Your task to perform on an android device: Go to network settings Image 0: 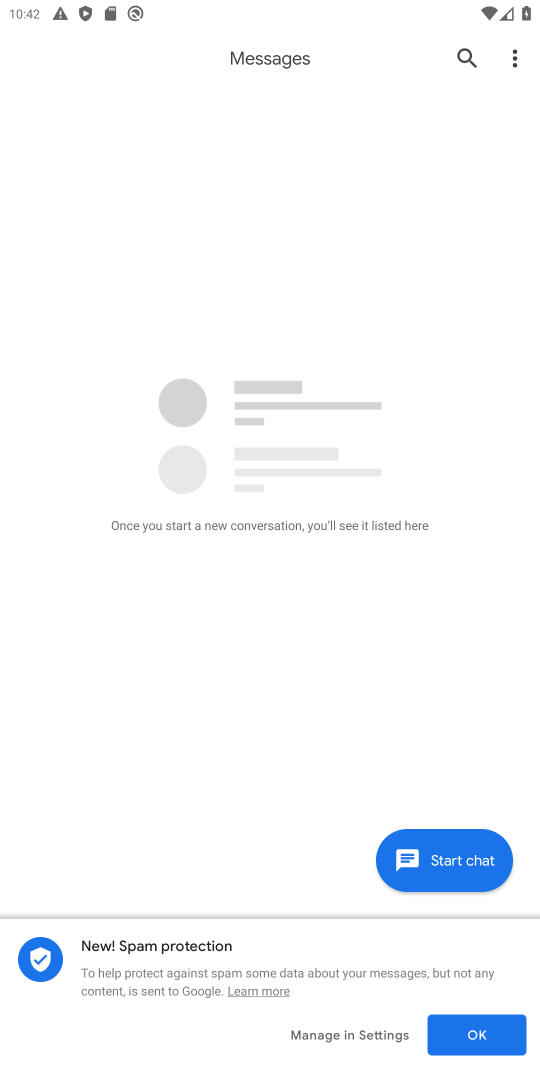
Step 0: press home button
Your task to perform on an android device: Go to network settings Image 1: 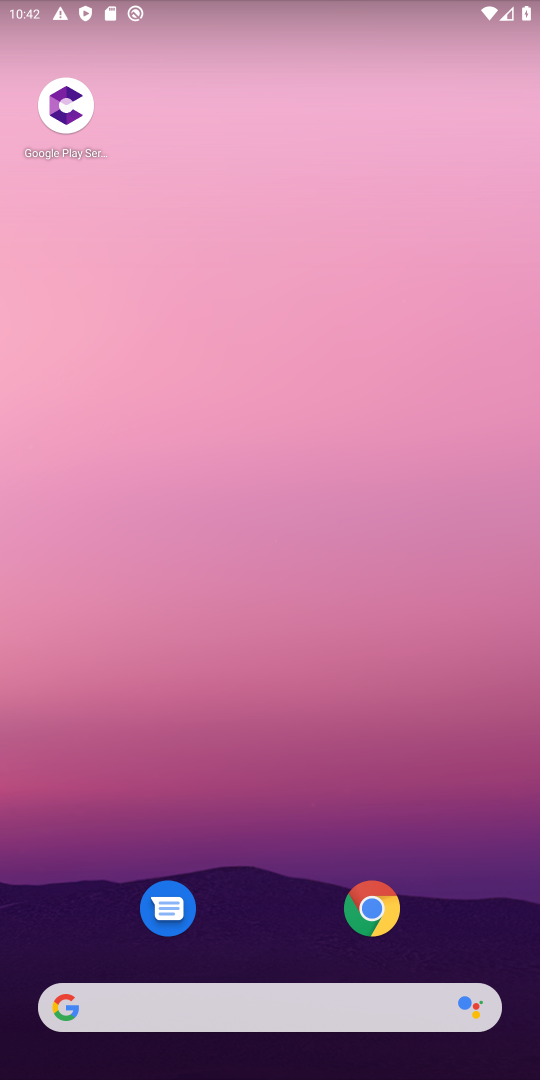
Step 1: drag from (26, 1028) to (226, 300)
Your task to perform on an android device: Go to network settings Image 2: 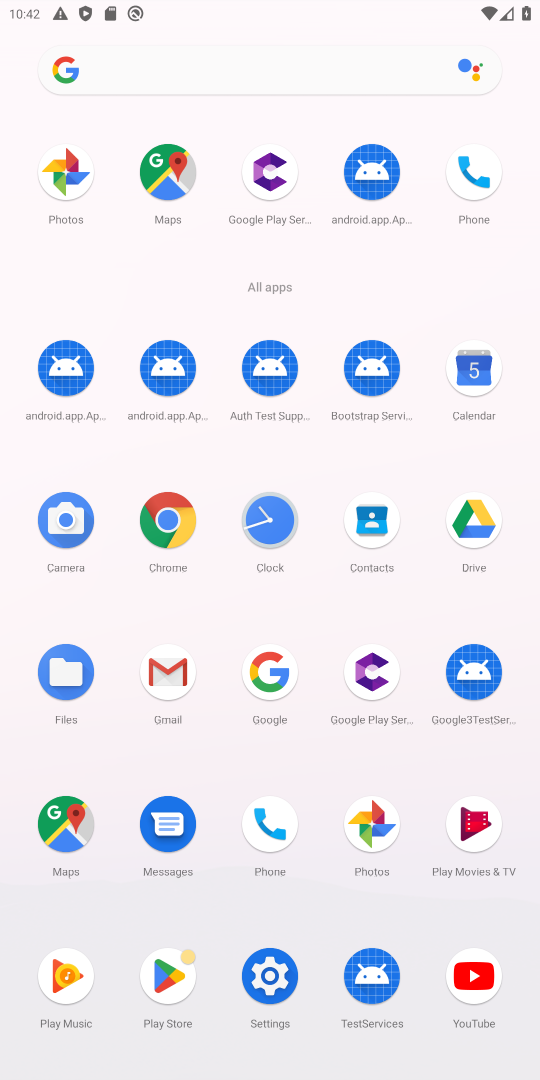
Step 2: click (272, 976)
Your task to perform on an android device: Go to network settings Image 3: 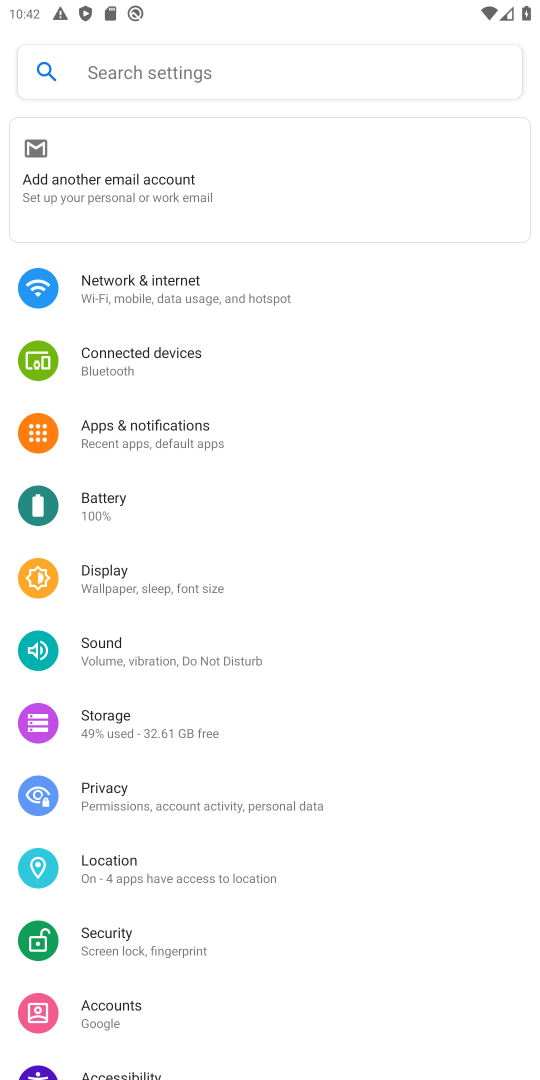
Step 3: click (165, 292)
Your task to perform on an android device: Go to network settings Image 4: 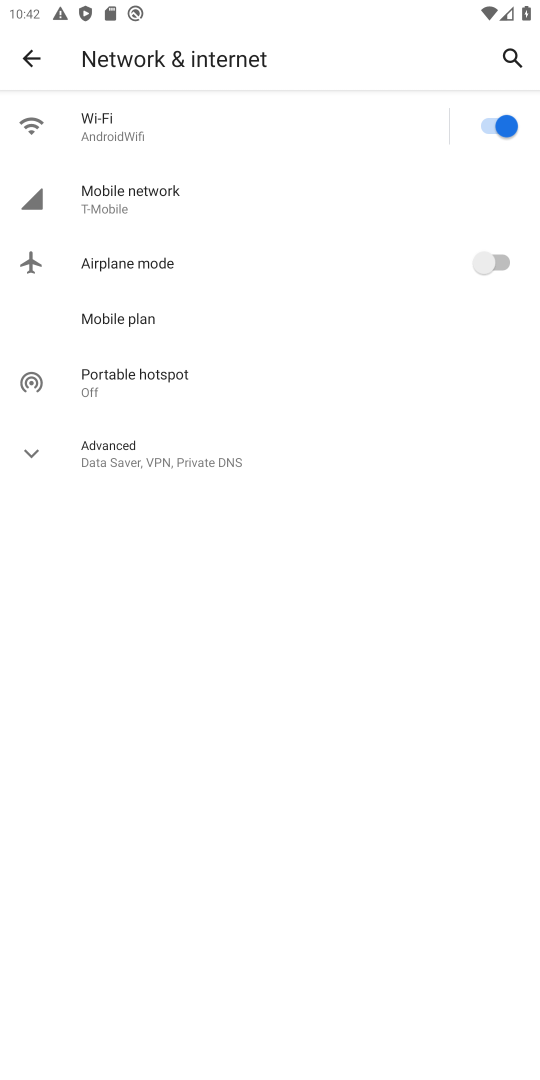
Step 4: task complete